Your task to perform on an android device: Go to wifi settings Image 0: 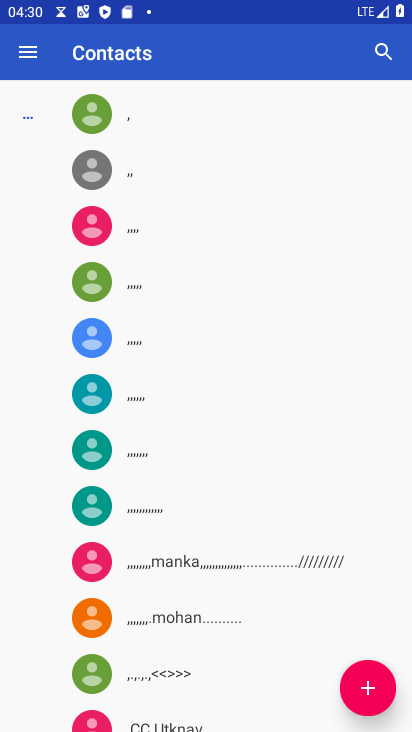
Step 0: press back button
Your task to perform on an android device: Go to wifi settings Image 1: 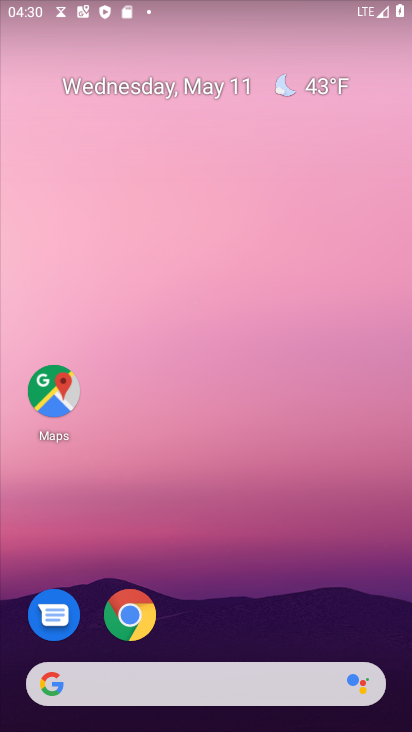
Step 1: drag from (268, 640) to (224, 32)
Your task to perform on an android device: Go to wifi settings Image 2: 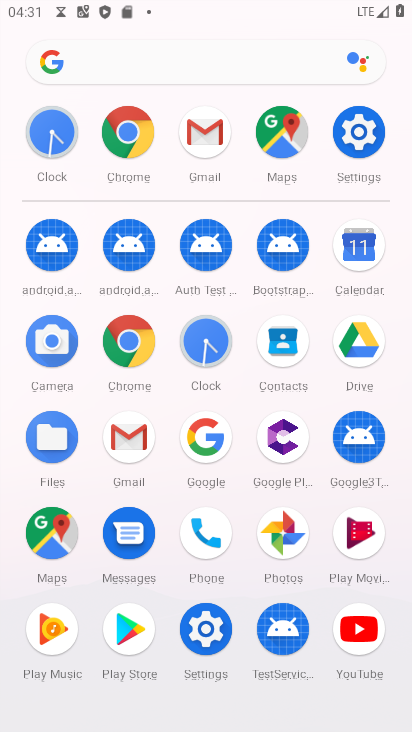
Step 2: click (201, 625)
Your task to perform on an android device: Go to wifi settings Image 3: 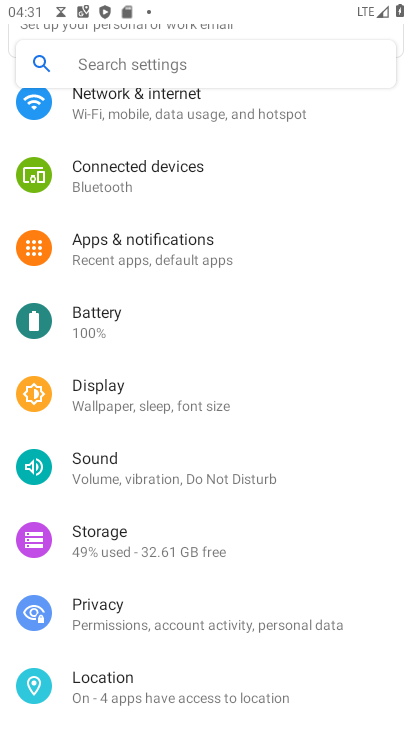
Step 3: drag from (279, 152) to (302, 415)
Your task to perform on an android device: Go to wifi settings Image 4: 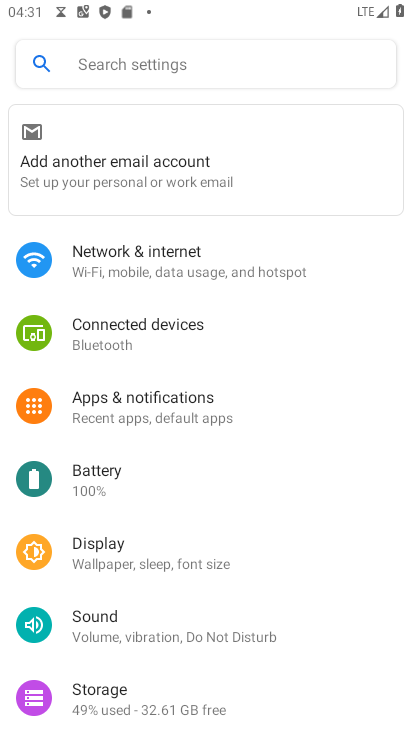
Step 4: click (224, 249)
Your task to perform on an android device: Go to wifi settings Image 5: 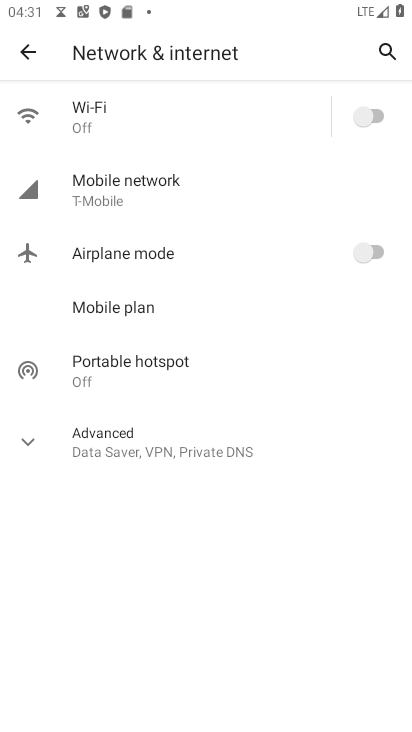
Step 5: click (110, 99)
Your task to perform on an android device: Go to wifi settings Image 6: 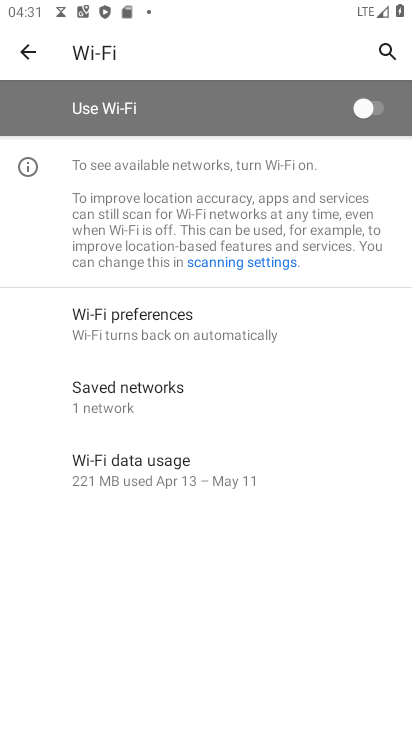
Step 6: task complete